Your task to perform on an android device: turn on javascript in the chrome app Image 0: 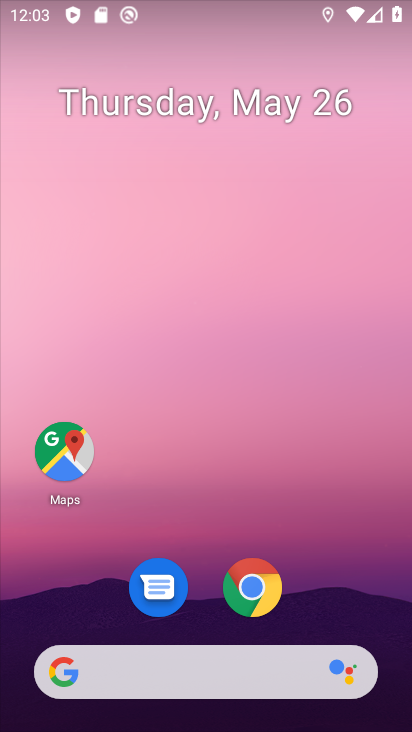
Step 0: drag from (390, 637) to (389, 234)
Your task to perform on an android device: turn on javascript in the chrome app Image 1: 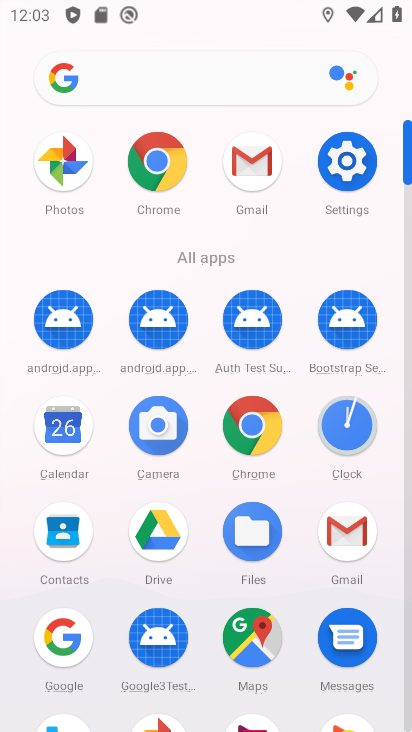
Step 1: click (267, 432)
Your task to perform on an android device: turn on javascript in the chrome app Image 2: 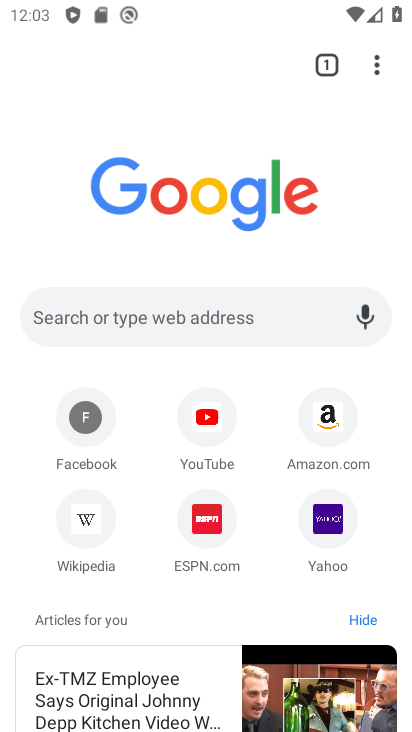
Step 2: click (375, 76)
Your task to perform on an android device: turn on javascript in the chrome app Image 3: 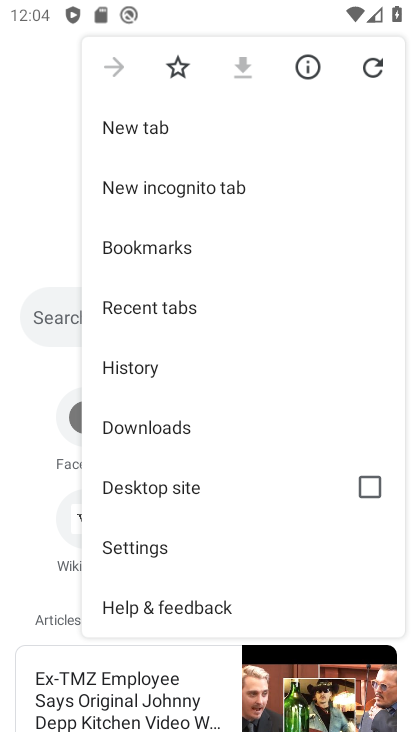
Step 3: click (176, 551)
Your task to perform on an android device: turn on javascript in the chrome app Image 4: 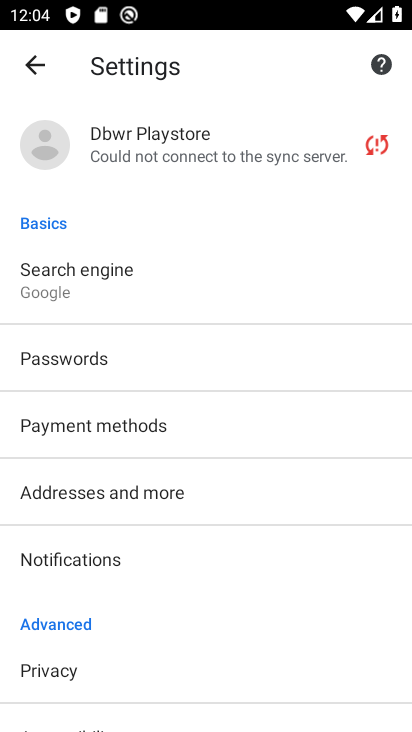
Step 4: drag from (296, 588) to (308, 475)
Your task to perform on an android device: turn on javascript in the chrome app Image 5: 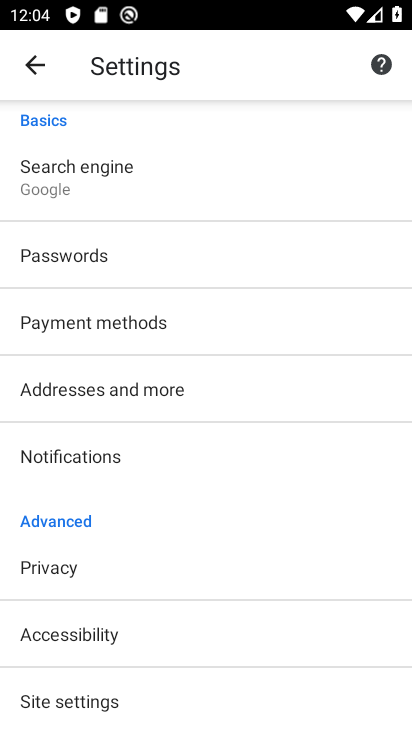
Step 5: drag from (314, 589) to (331, 465)
Your task to perform on an android device: turn on javascript in the chrome app Image 6: 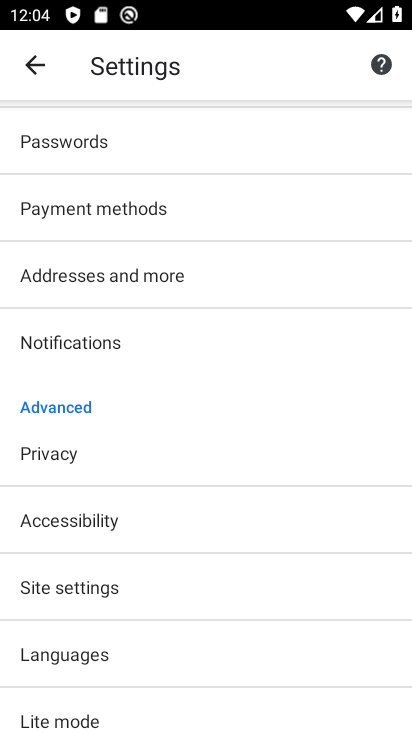
Step 6: drag from (330, 563) to (310, 409)
Your task to perform on an android device: turn on javascript in the chrome app Image 7: 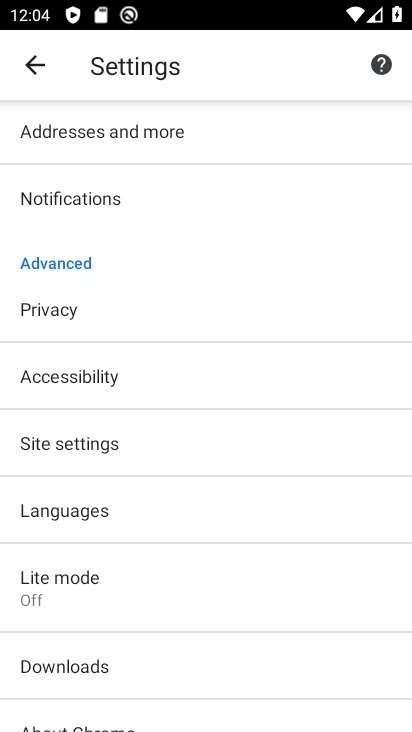
Step 7: drag from (314, 546) to (295, 376)
Your task to perform on an android device: turn on javascript in the chrome app Image 8: 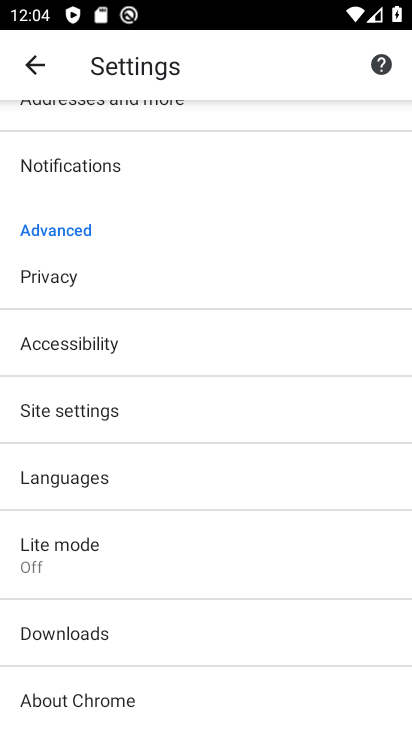
Step 8: click (235, 421)
Your task to perform on an android device: turn on javascript in the chrome app Image 9: 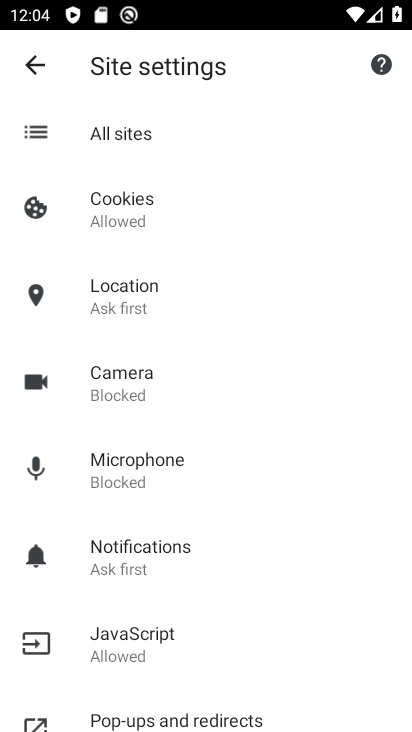
Step 9: drag from (278, 549) to (282, 422)
Your task to perform on an android device: turn on javascript in the chrome app Image 10: 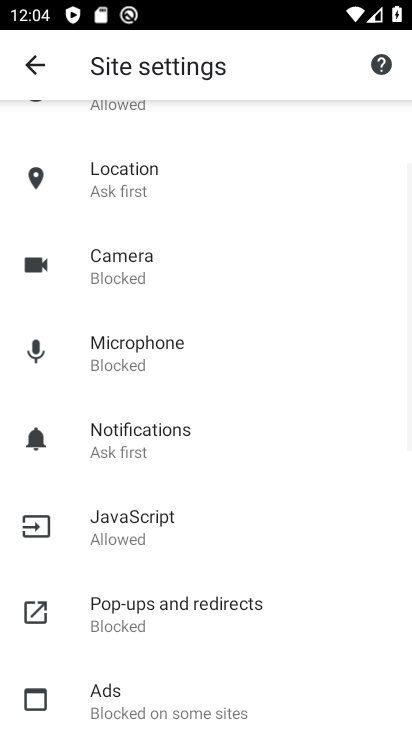
Step 10: drag from (297, 547) to (295, 398)
Your task to perform on an android device: turn on javascript in the chrome app Image 11: 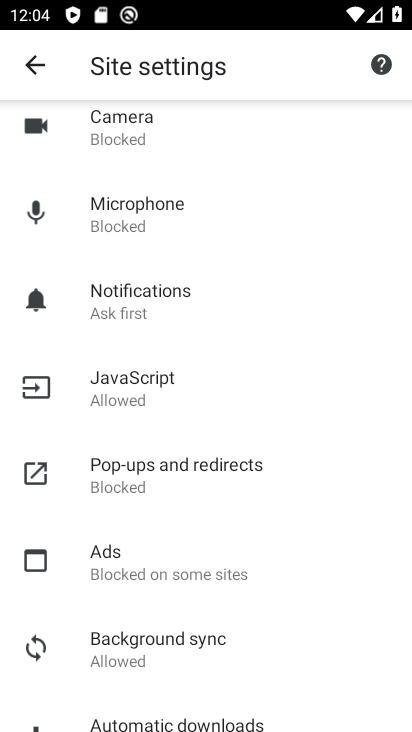
Step 11: click (155, 404)
Your task to perform on an android device: turn on javascript in the chrome app Image 12: 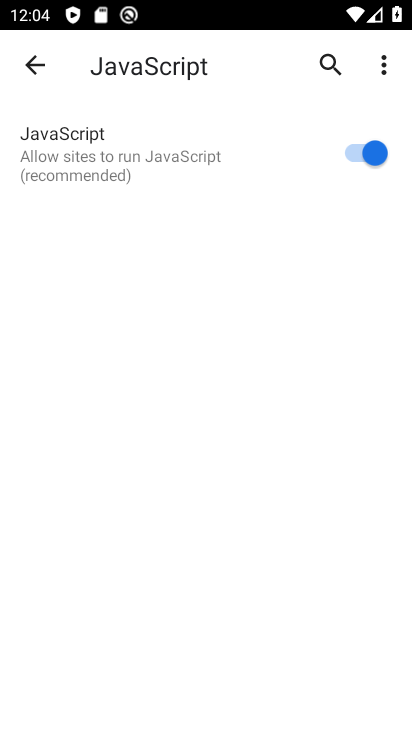
Step 12: task complete